Your task to perform on an android device: empty trash in google photos Image 0: 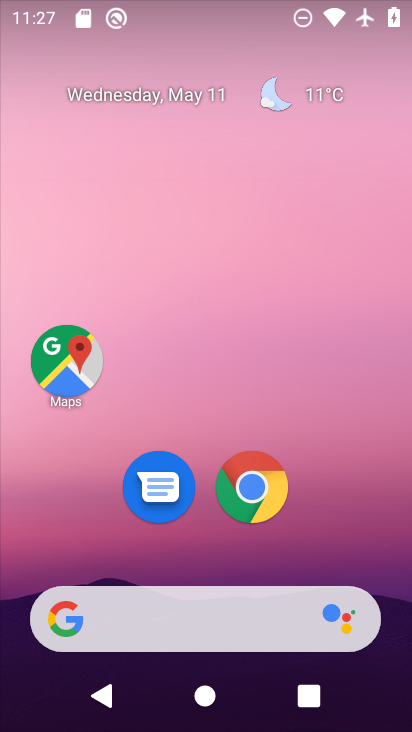
Step 0: drag from (325, 498) to (234, 13)
Your task to perform on an android device: empty trash in google photos Image 1: 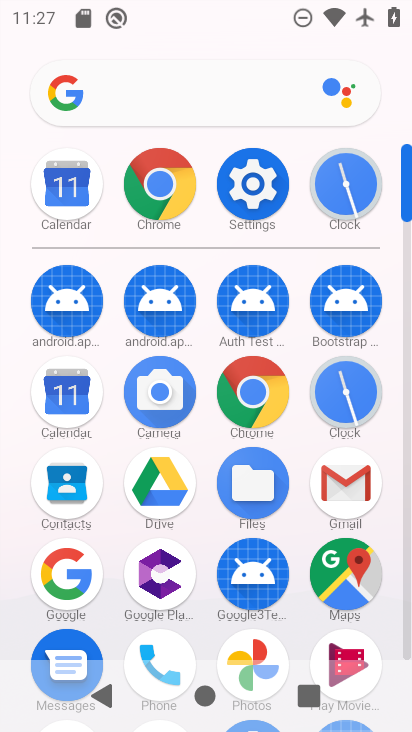
Step 1: click (247, 657)
Your task to perform on an android device: empty trash in google photos Image 2: 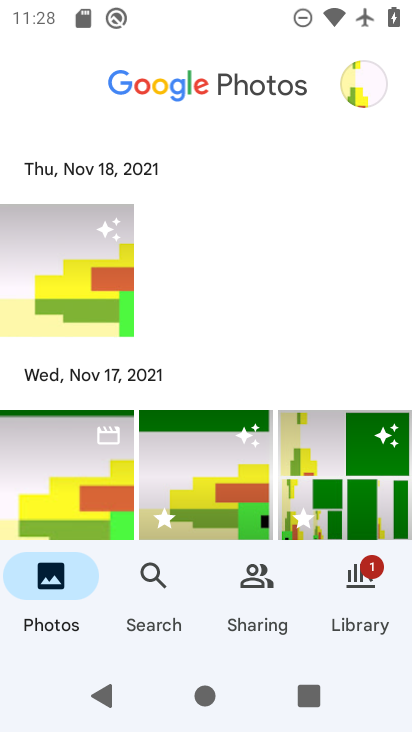
Step 2: click (344, 594)
Your task to perform on an android device: empty trash in google photos Image 3: 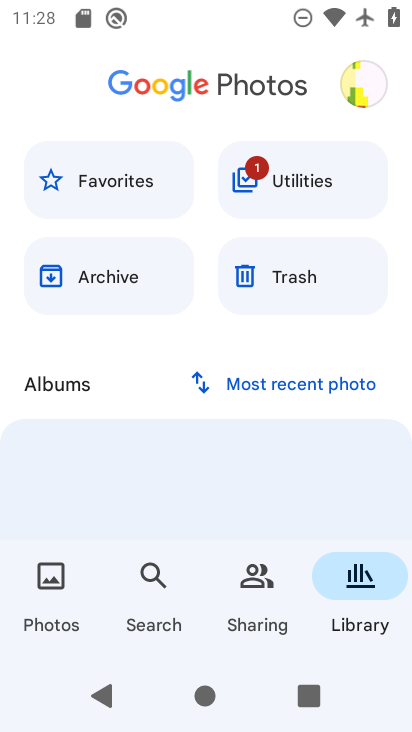
Step 3: click (292, 271)
Your task to perform on an android device: empty trash in google photos Image 4: 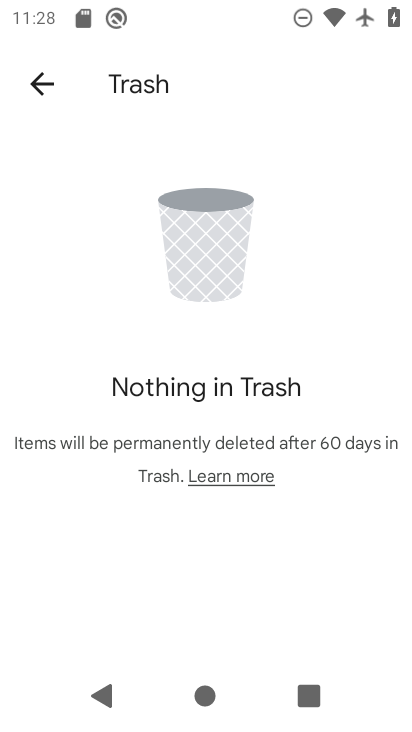
Step 4: task complete